Your task to perform on an android device: change the clock display to analog Image 0: 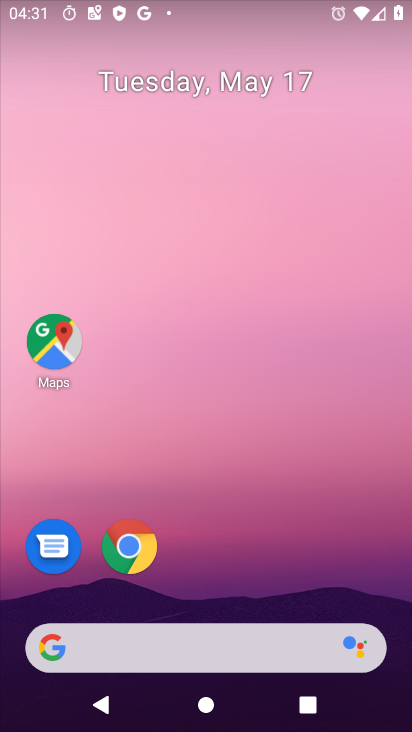
Step 0: click (378, 376)
Your task to perform on an android device: change the clock display to analog Image 1: 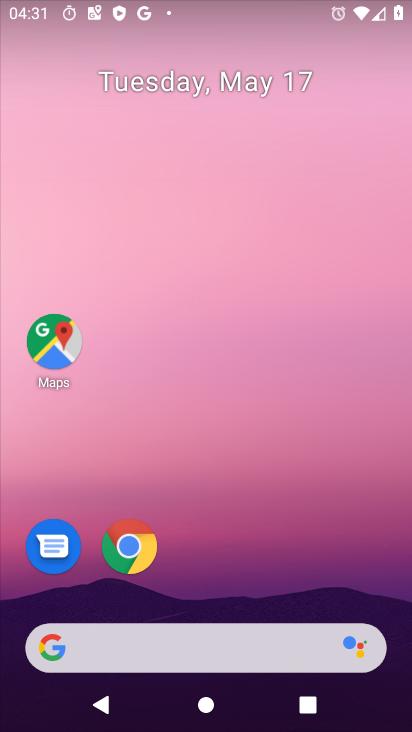
Step 1: drag from (369, 488) to (330, 278)
Your task to perform on an android device: change the clock display to analog Image 2: 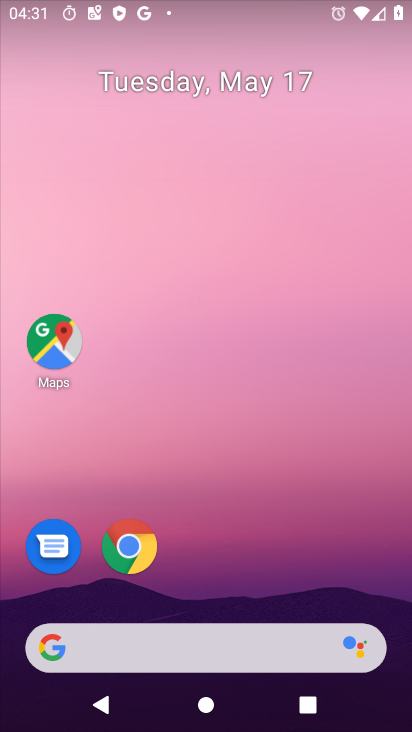
Step 2: drag from (402, 546) to (359, 167)
Your task to perform on an android device: change the clock display to analog Image 3: 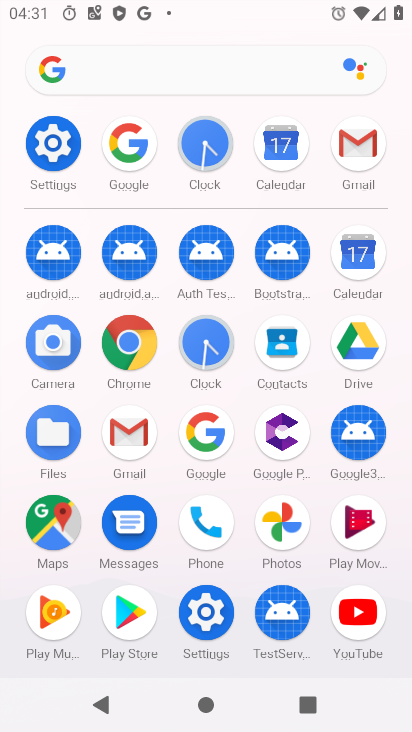
Step 3: click (210, 337)
Your task to perform on an android device: change the clock display to analog Image 4: 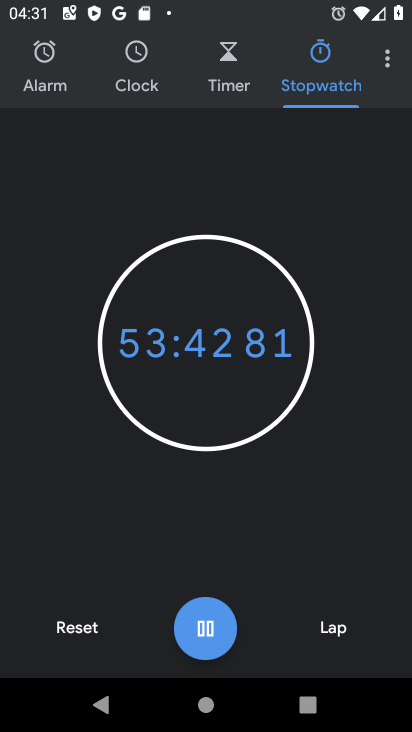
Step 4: click (385, 63)
Your task to perform on an android device: change the clock display to analog Image 5: 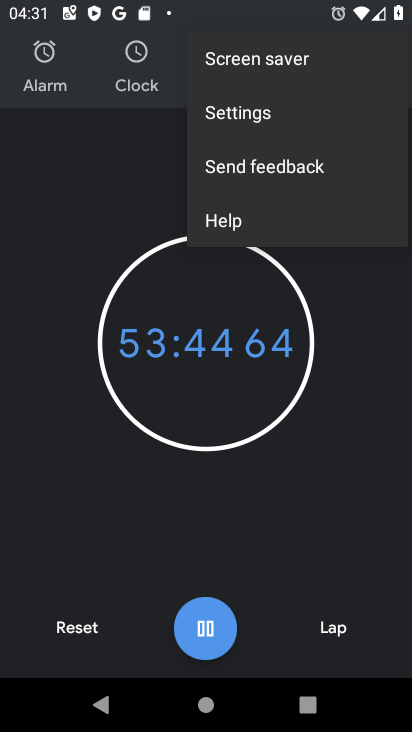
Step 5: click (240, 108)
Your task to perform on an android device: change the clock display to analog Image 6: 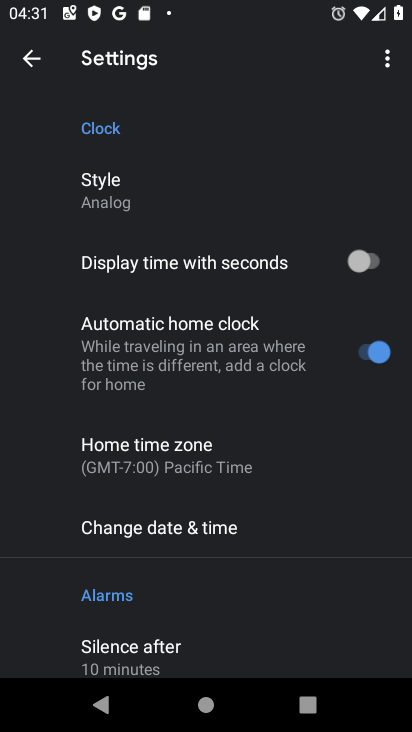
Step 6: click (98, 175)
Your task to perform on an android device: change the clock display to analog Image 7: 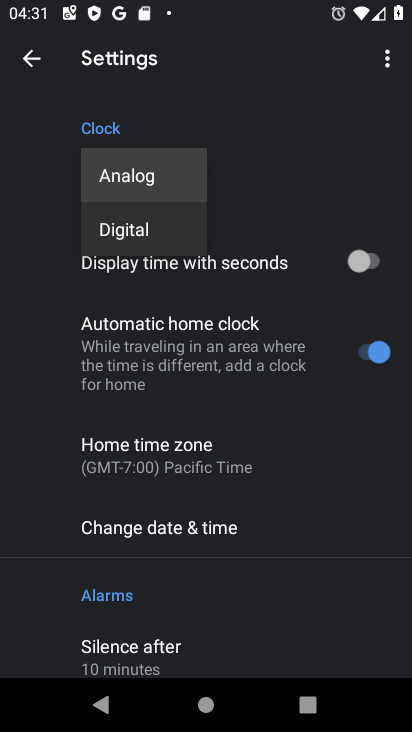
Step 7: click (134, 176)
Your task to perform on an android device: change the clock display to analog Image 8: 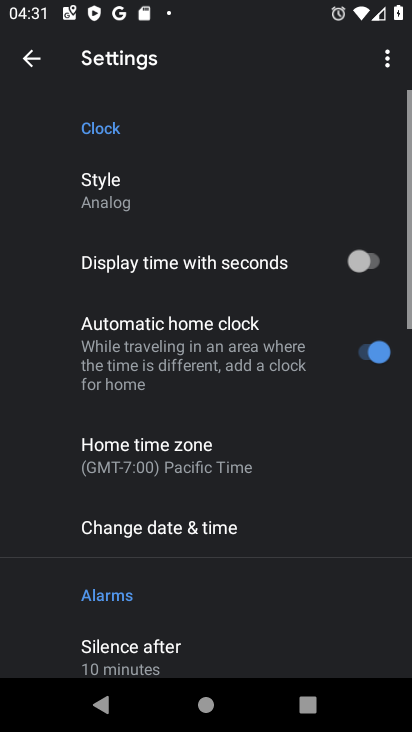
Step 8: task complete